Your task to perform on an android device: make emails show in primary in the gmail app Image 0: 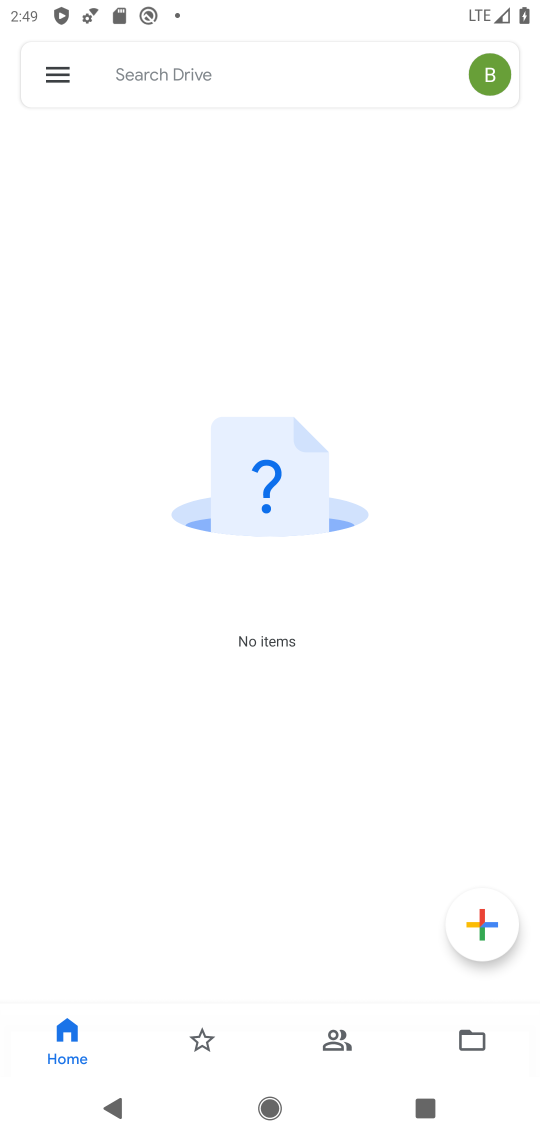
Step 0: press home button
Your task to perform on an android device: make emails show in primary in the gmail app Image 1: 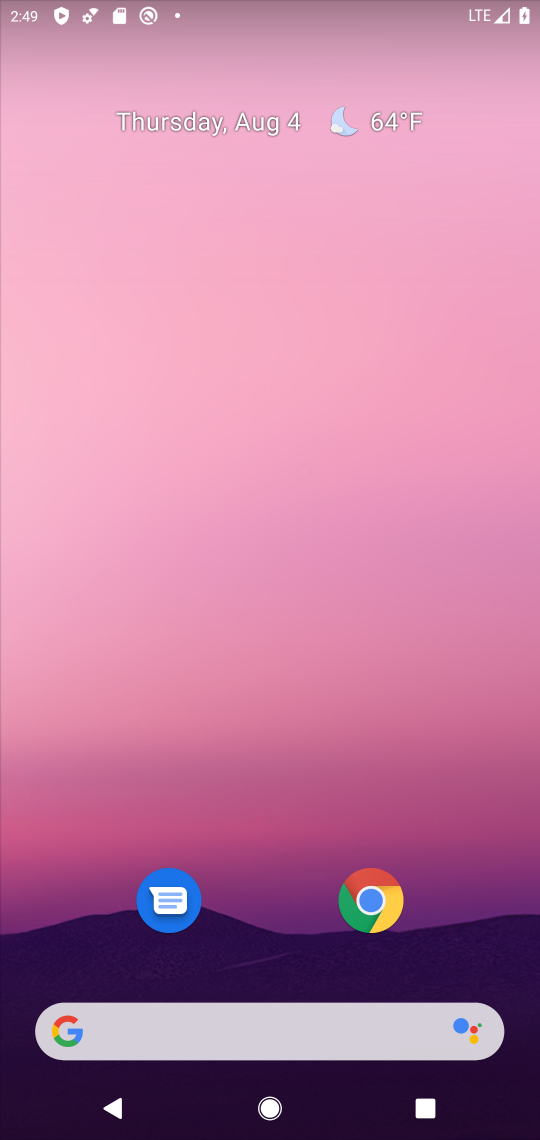
Step 1: drag from (508, 941) to (389, 182)
Your task to perform on an android device: make emails show in primary in the gmail app Image 2: 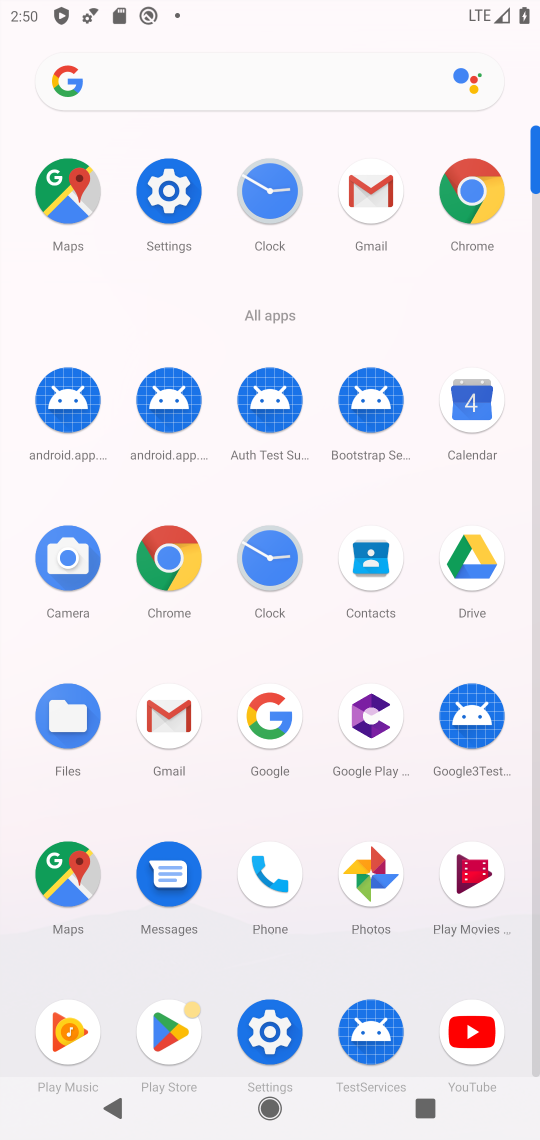
Step 2: click (373, 212)
Your task to perform on an android device: make emails show in primary in the gmail app Image 3: 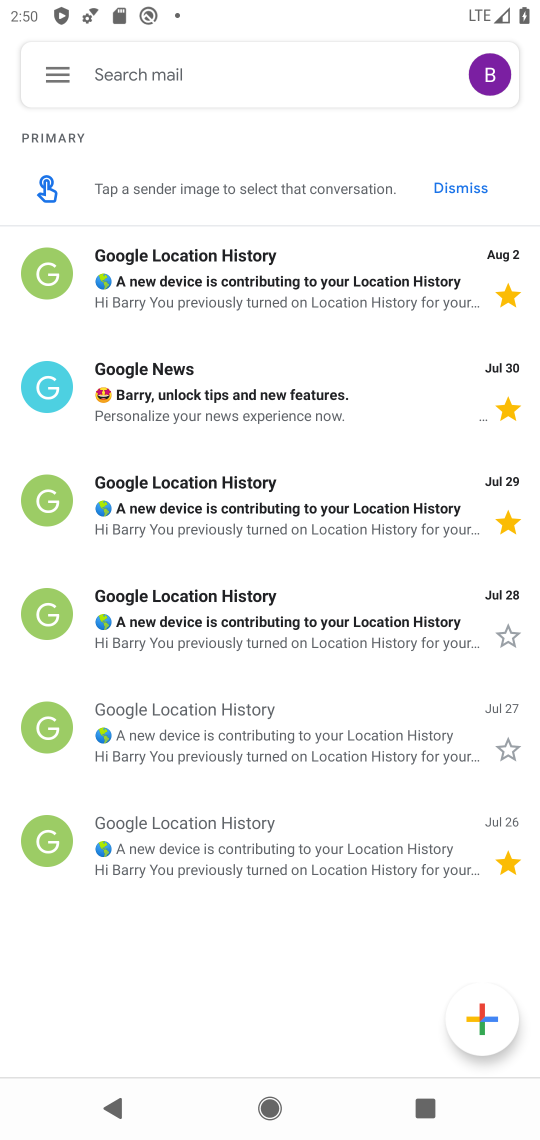
Step 3: click (58, 68)
Your task to perform on an android device: make emails show in primary in the gmail app Image 4: 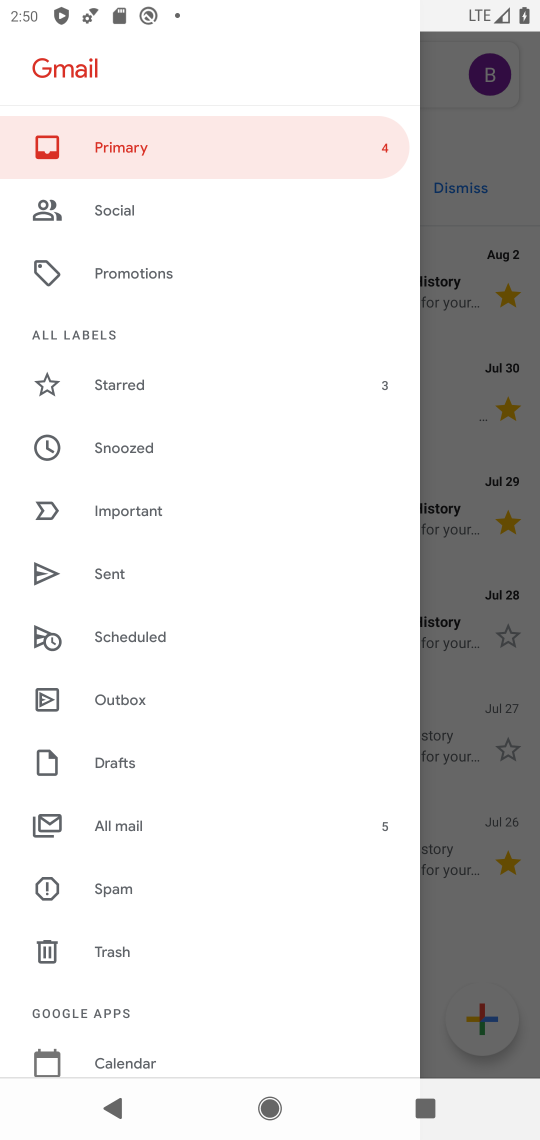
Step 4: drag from (123, 994) to (117, 291)
Your task to perform on an android device: make emails show in primary in the gmail app Image 5: 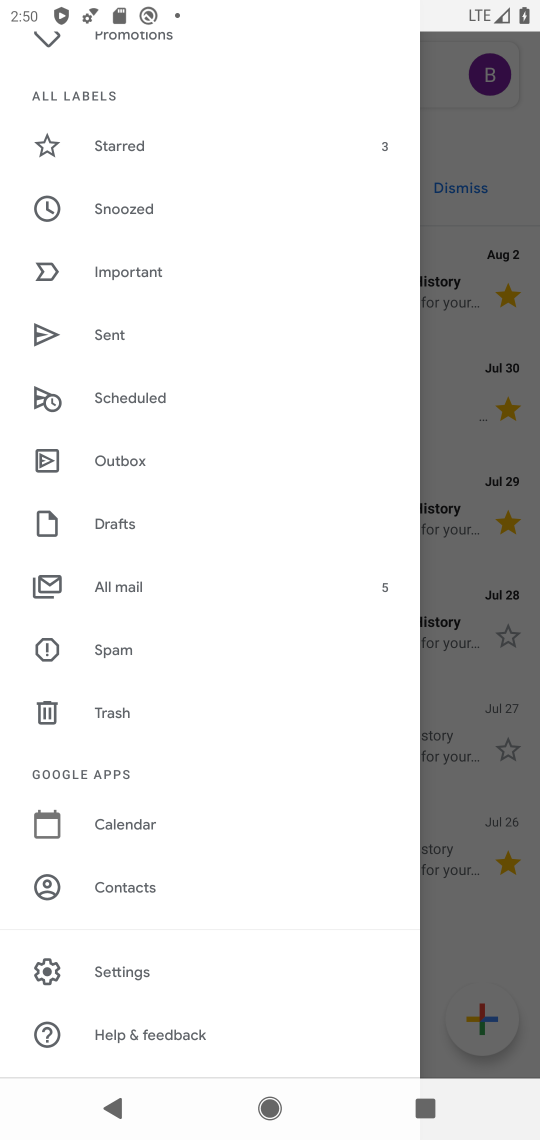
Step 5: click (142, 979)
Your task to perform on an android device: make emails show in primary in the gmail app Image 6: 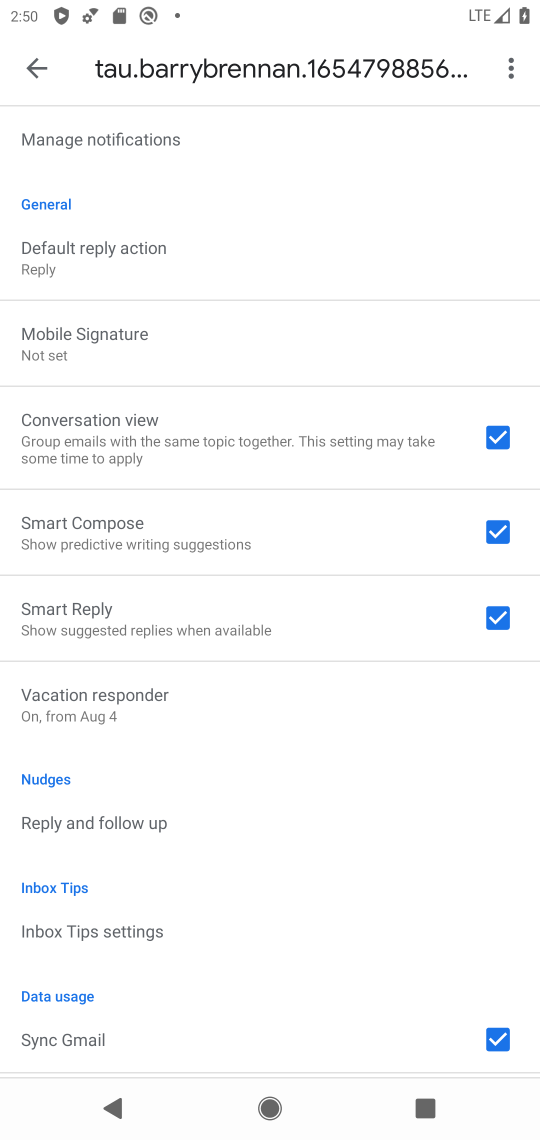
Step 6: drag from (234, 213) to (217, 1030)
Your task to perform on an android device: make emails show in primary in the gmail app Image 7: 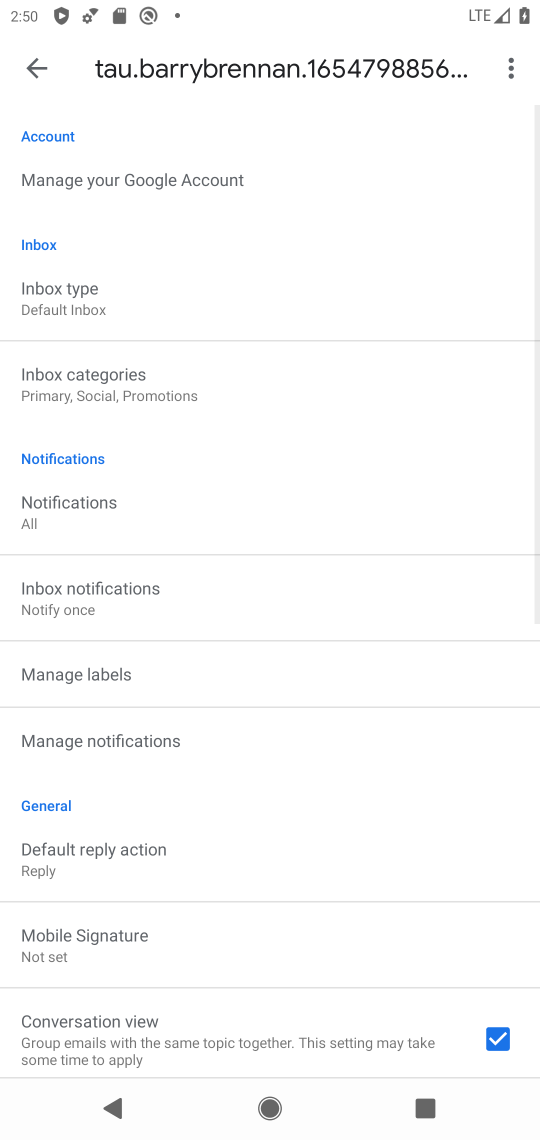
Step 7: click (202, 306)
Your task to perform on an android device: make emails show in primary in the gmail app Image 8: 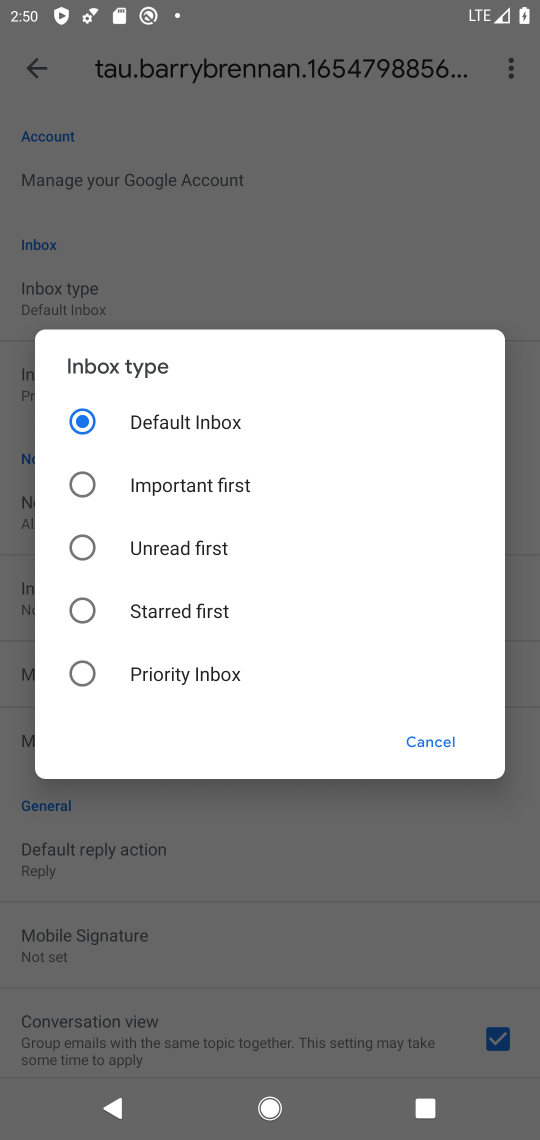
Step 8: click (194, 417)
Your task to perform on an android device: make emails show in primary in the gmail app Image 9: 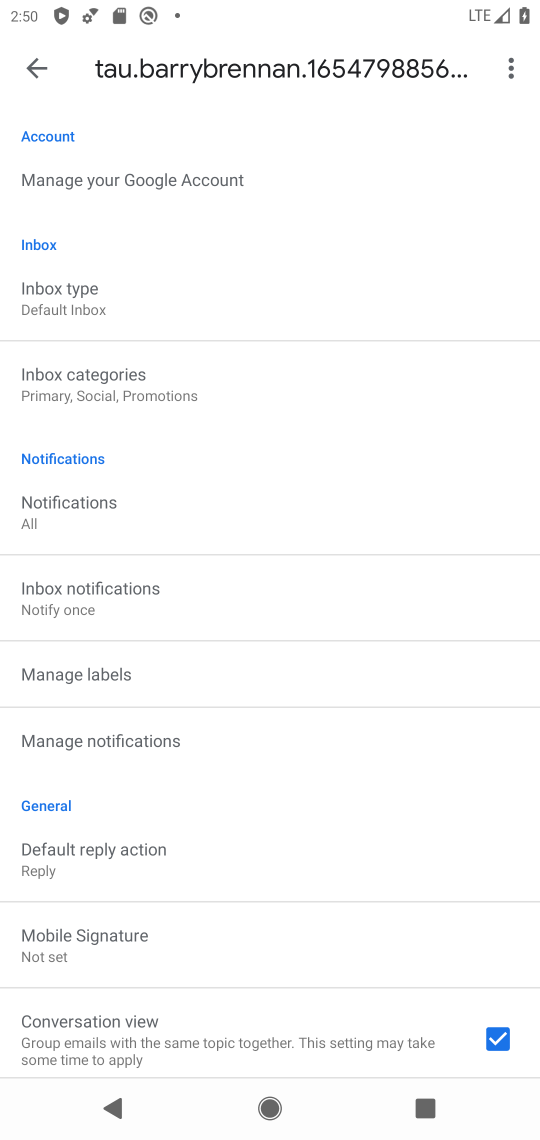
Step 9: task complete